Your task to perform on an android device: set an alarm Image 0: 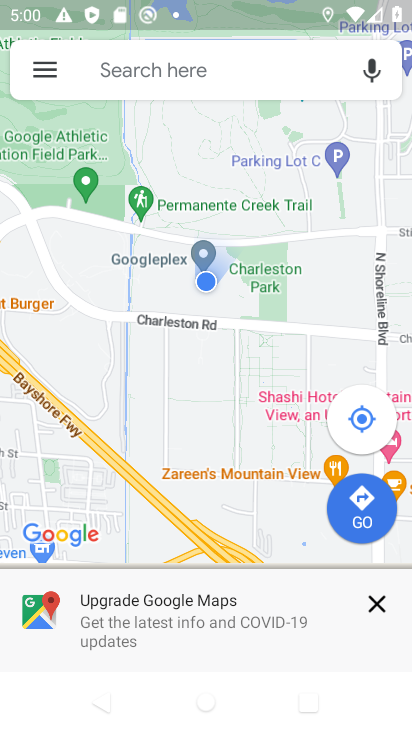
Step 0: click (234, 77)
Your task to perform on an android device: set an alarm Image 1: 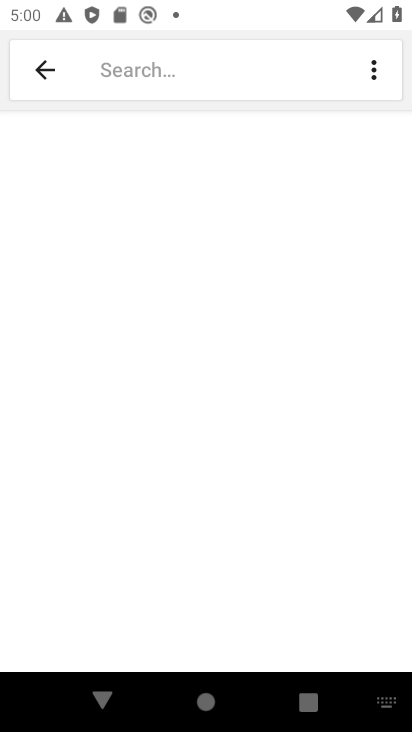
Step 1: click (36, 65)
Your task to perform on an android device: set an alarm Image 2: 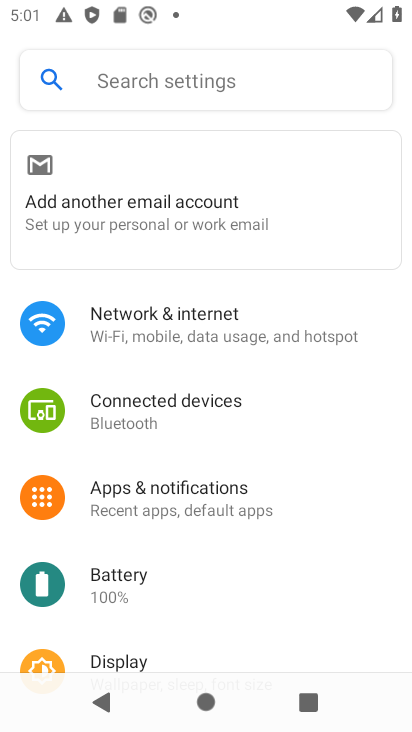
Step 2: press home button
Your task to perform on an android device: set an alarm Image 3: 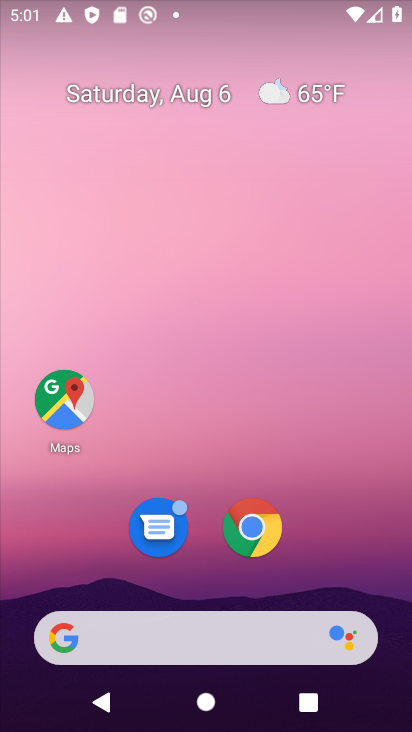
Step 3: drag from (176, 620) to (258, 84)
Your task to perform on an android device: set an alarm Image 4: 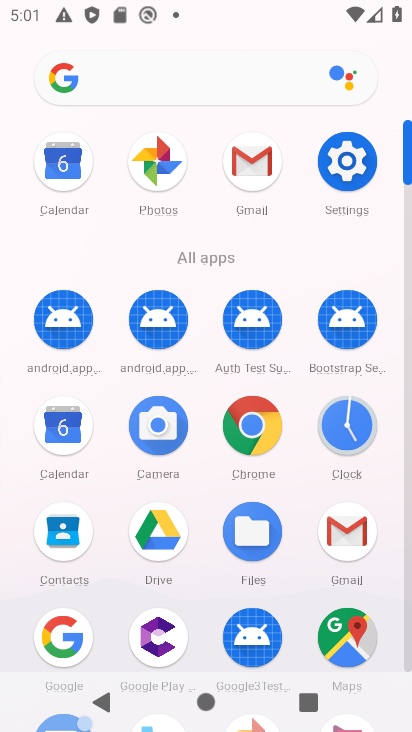
Step 4: click (324, 427)
Your task to perform on an android device: set an alarm Image 5: 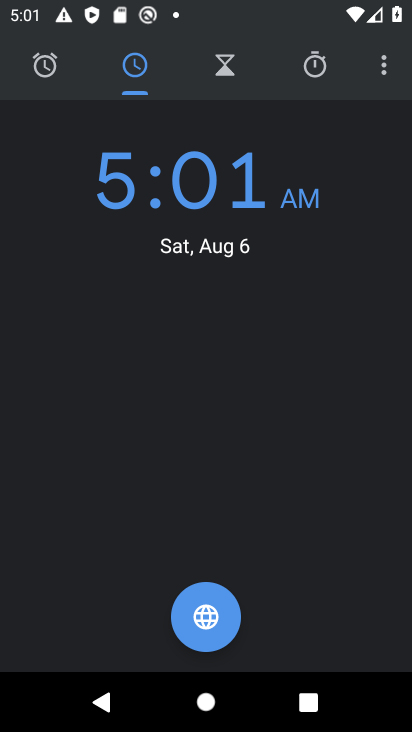
Step 5: click (38, 88)
Your task to perform on an android device: set an alarm Image 6: 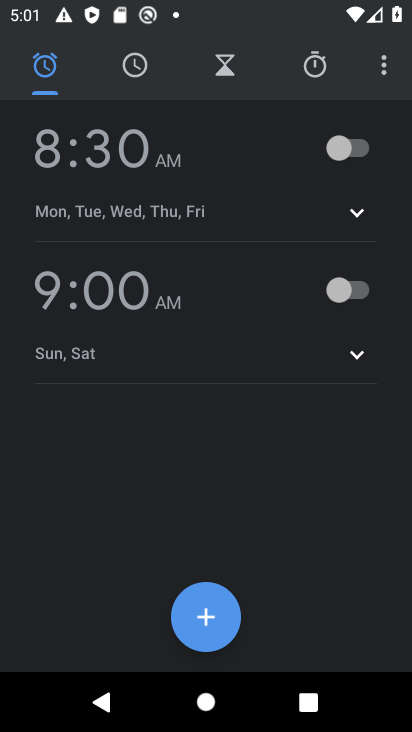
Step 6: click (214, 611)
Your task to perform on an android device: set an alarm Image 7: 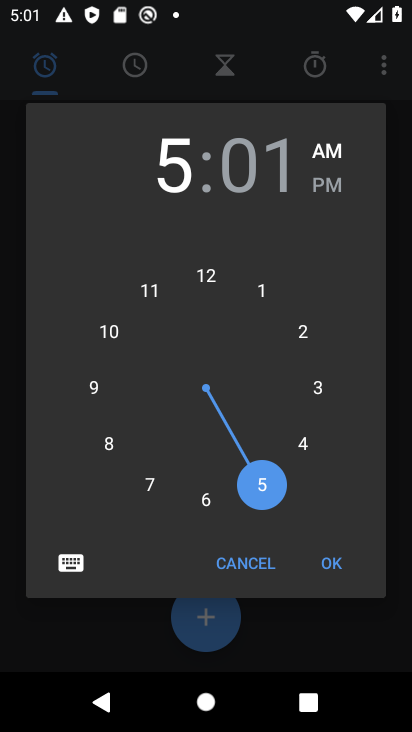
Step 7: click (160, 481)
Your task to perform on an android device: set an alarm Image 8: 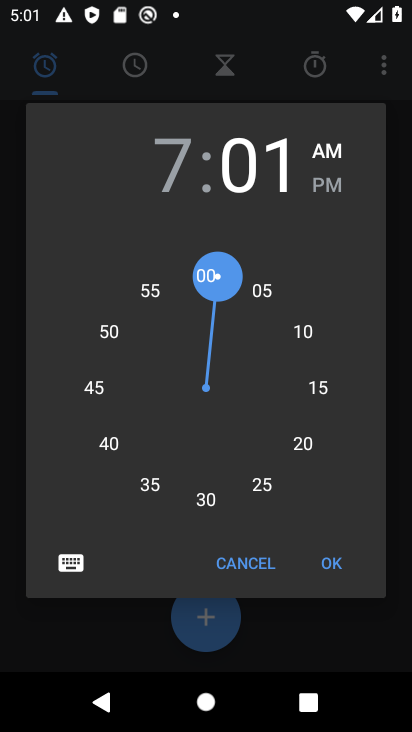
Step 8: click (338, 561)
Your task to perform on an android device: set an alarm Image 9: 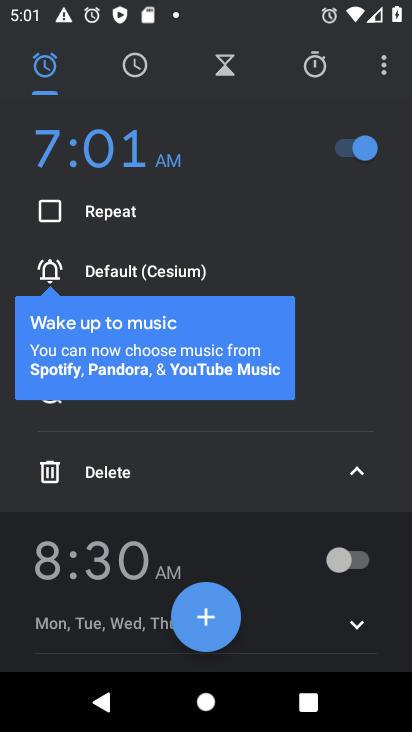
Step 9: task complete